Your task to perform on an android device: Toggle the flashlight Image 0: 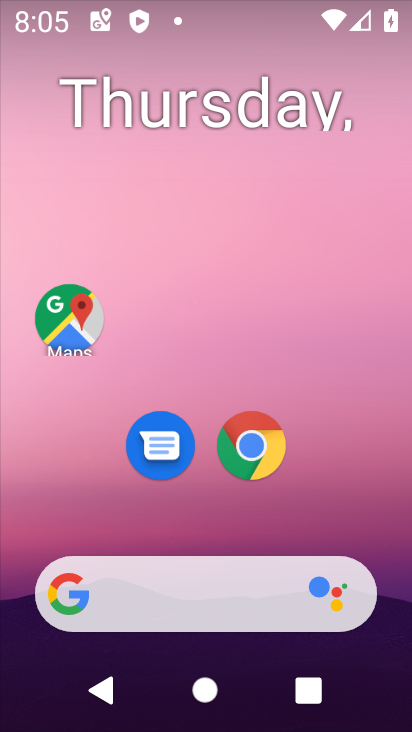
Step 0: drag from (376, 443) to (391, 105)
Your task to perform on an android device: Toggle the flashlight Image 1: 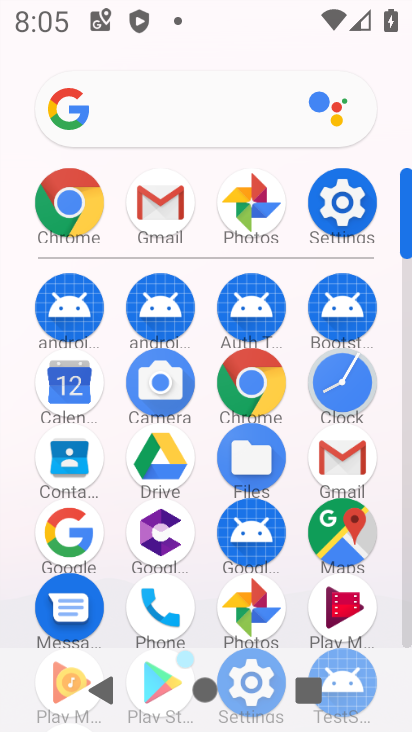
Step 1: click (328, 216)
Your task to perform on an android device: Toggle the flashlight Image 2: 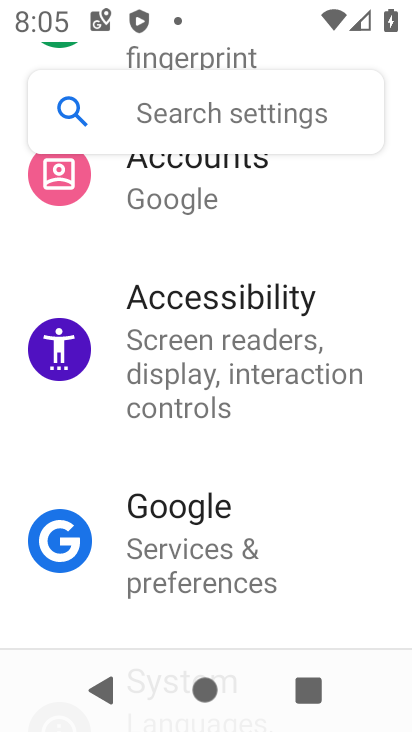
Step 2: click (250, 116)
Your task to perform on an android device: Toggle the flashlight Image 3: 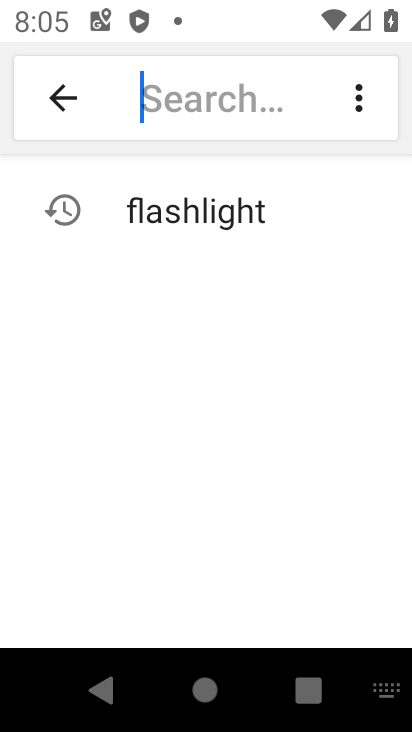
Step 3: click (197, 219)
Your task to perform on an android device: Toggle the flashlight Image 4: 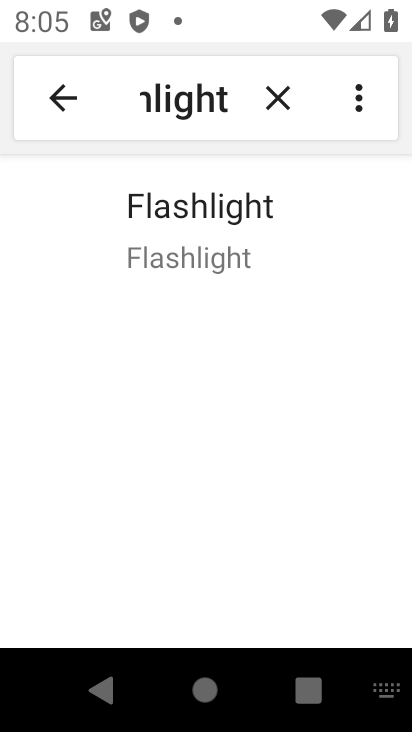
Step 4: click (241, 239)
Your task to perform on an android device: Toggle the flashlight Image 5: 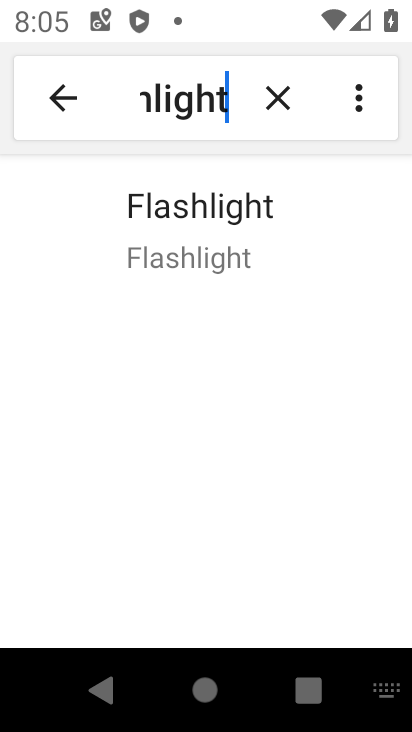
Step 5: task complete